Your task to perform on an android device: check storage Image 0: 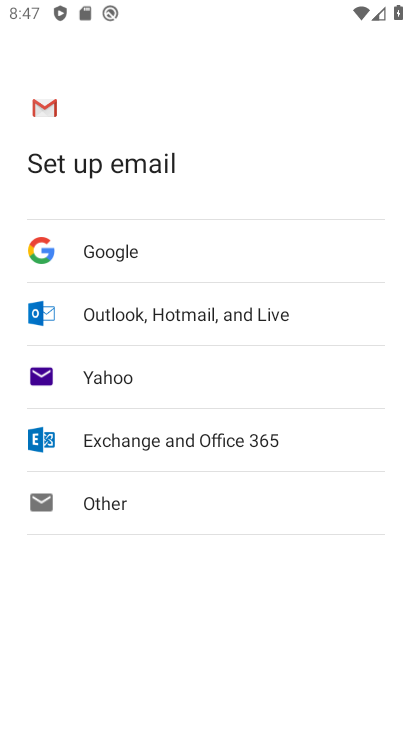
Step 0: press home button
Your task to perform on an android device: check storage Image 1: 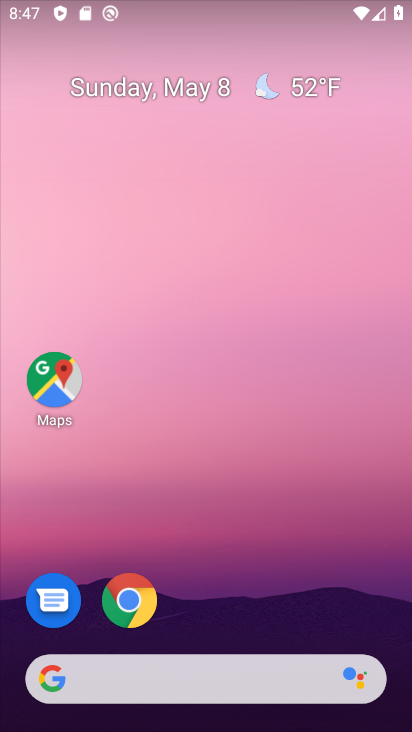
Step 1: drag from (213, 650) to (205, 1)
Your task to perform on an android device: check storage Image 2: 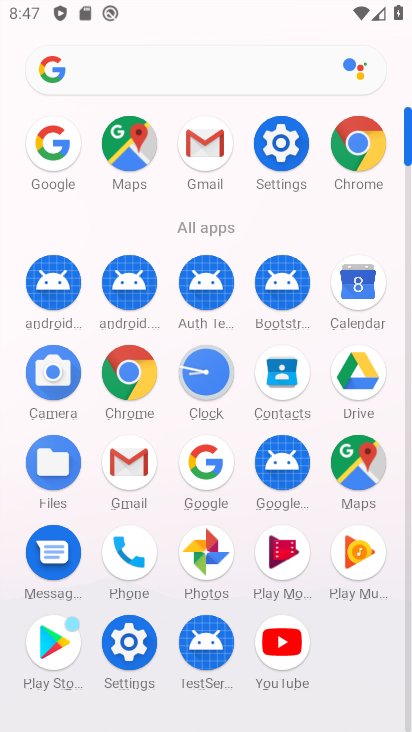
Step 2: click (271, 154)
Your task to perform on an android device: check storage Image 3: 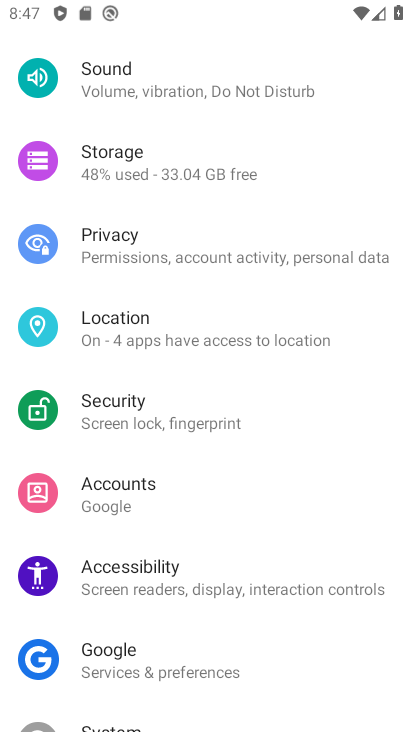
Step 3: drag from (124, 534) to (93, 181)
Your task to perform on an android device: check storage Image 4: 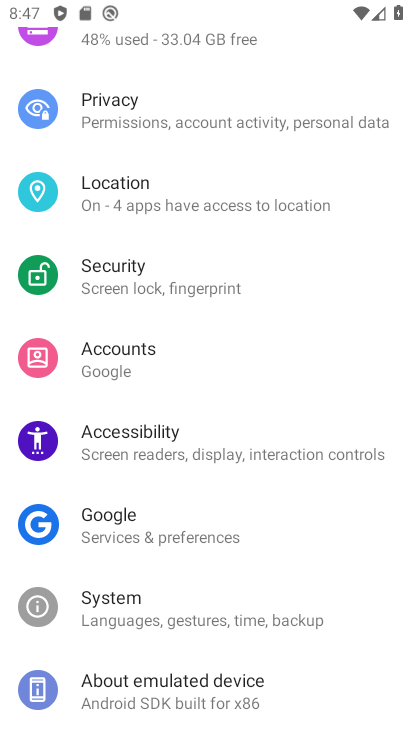
Step 4: click (128, 52)
Your task to perform on an android device: check storage Image 5: 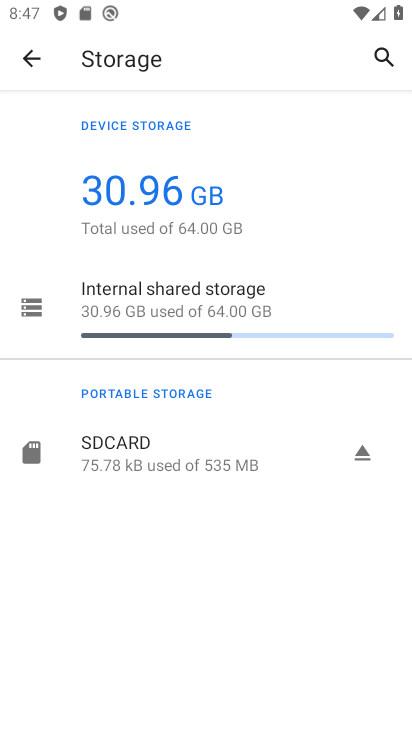
Step 5: click (161, 315)
Your task to perform on an android device: check storage Image 6: 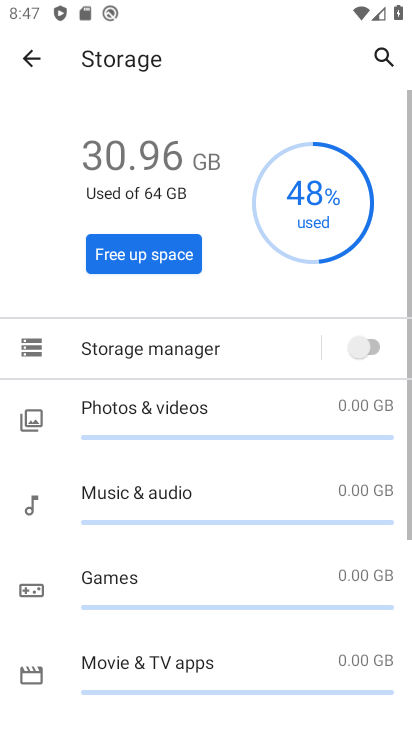
Step 6: task complete